Your task to perform on an android device: Open the Play Movies app and select the watchlist tab. Image 0: 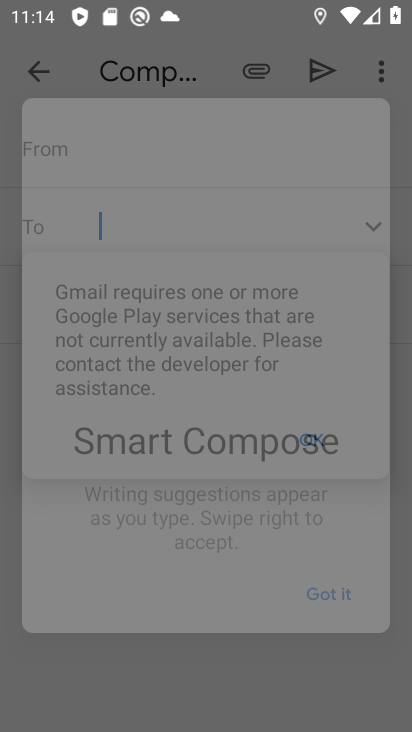
Step 0: press home button
Your task to perform on an android device: Open the Play Movies app and select the watchlist tab. Image 1: 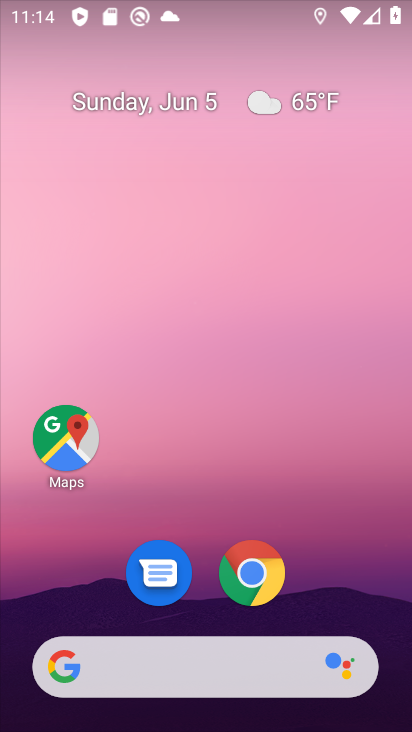
Step 1: drag from (205, 614) to (212, 2)
Your task to perform on an android device: Open the Play Movies app and select the watchlist tab. Image 2: 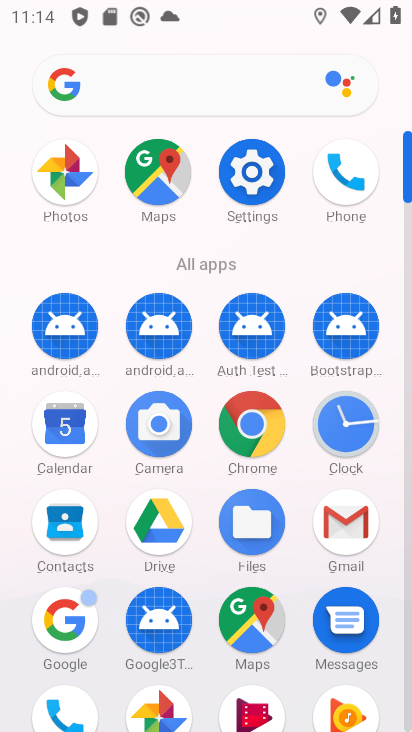
Step 2: drag from (200, 581) to (240, 114)
Your task to perform on an android device: Open the Play Movies app and select the watchlist tab. Image 3: 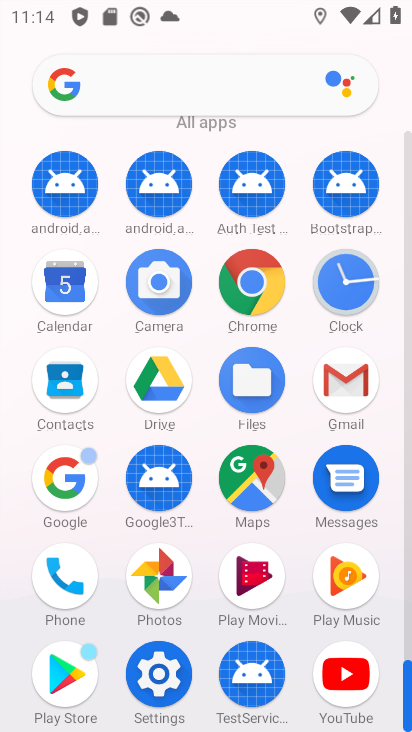
Step 3: click (251, 571)
Your task to perform on an android device: Open the Play Movies app and select the watchlist tab. Image 4: 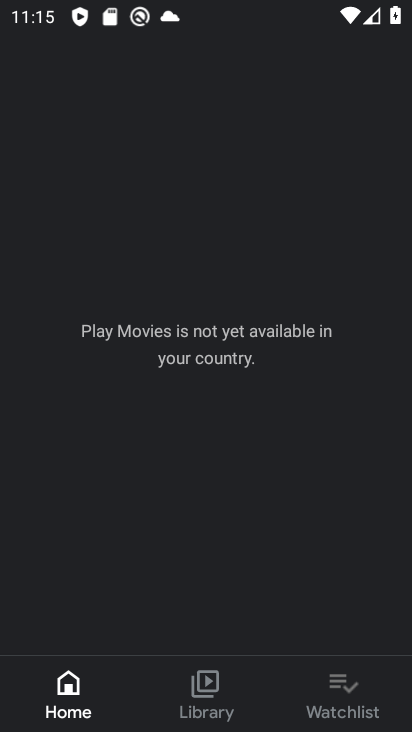
Step 4: click (344, 685)
Your task to perform on an android device: Open the Play Movies app and select the watchlist tab. Image 5: 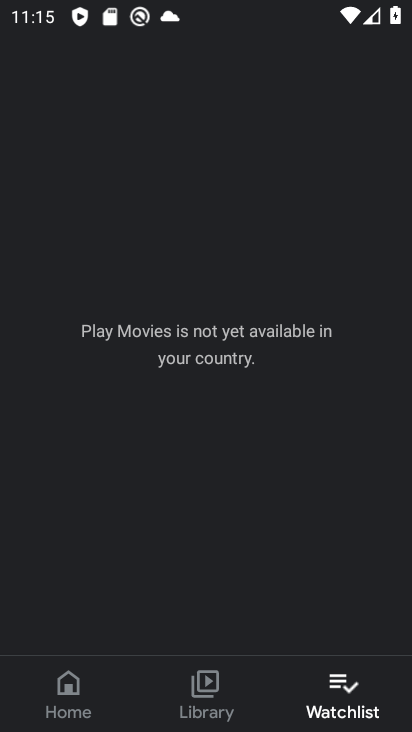
Step 5: task complete